Your task to perform on an android device: find photos in the google photos app Image 0: 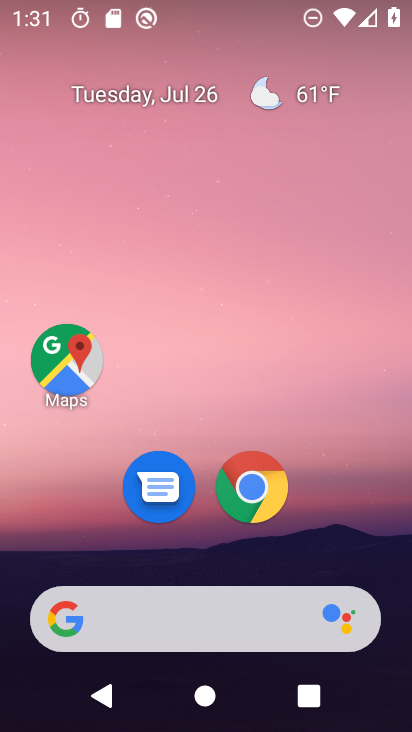
Step 0: drag from (172, 554) to (288, 6)
Your task to perform on an android device: find photos in the google photos app Image 1: 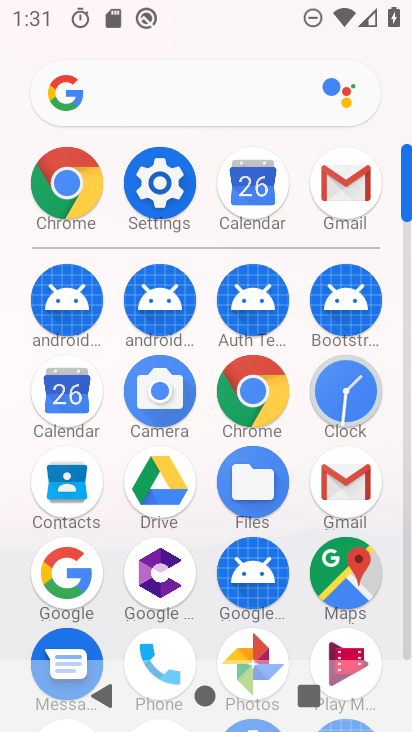
Step 1: click (242, 643)
Your task to perform on an android device: find photos in the google photos app Image 2: 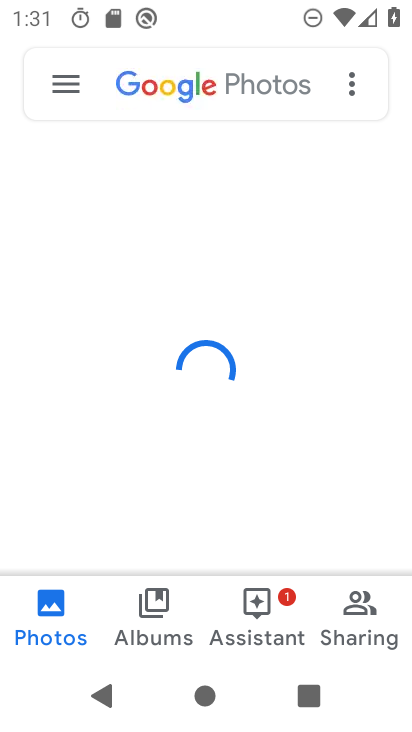
Step 2: click (56, 605)
Your task to perform on an android device: find photos in the google photos app Image 3: 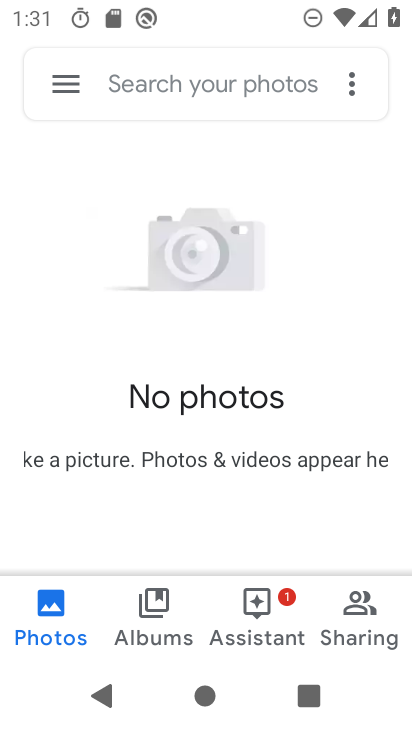
Step 3: task complete